Your task to perform on an android device: turn on priority inbox in the gmail app Image 0: 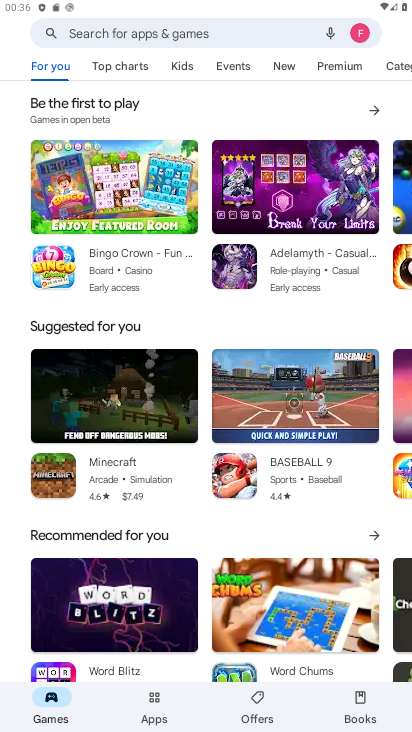
Step 0: press back button
Your task to perform on an android device: turn on priority inbox in the gmail app Image 1: 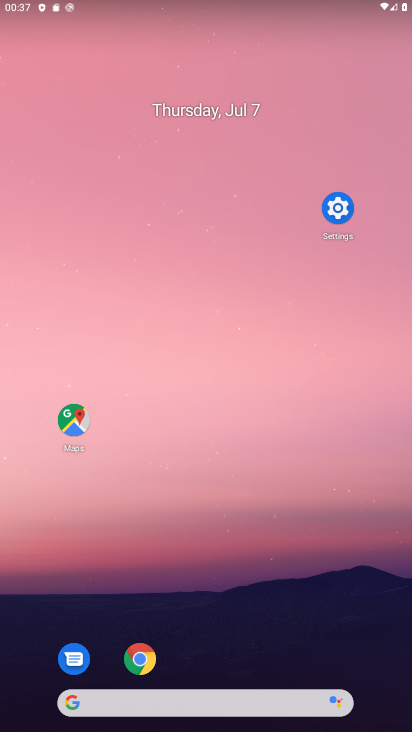
Step 1: drag from (241, 662) to (199, 208)
Your task to perform on an android device: turn on priority inbox in the gmail app Image 2: 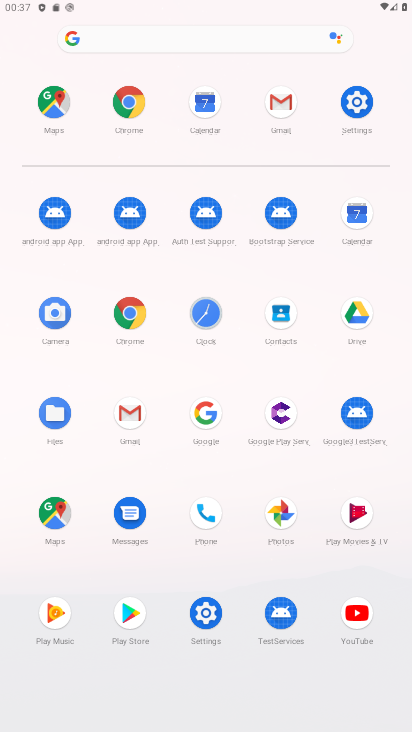
Step 2: click (113, 410)
Your task to perform on an android device: turn on priority inbox in the gmail app Image 3: 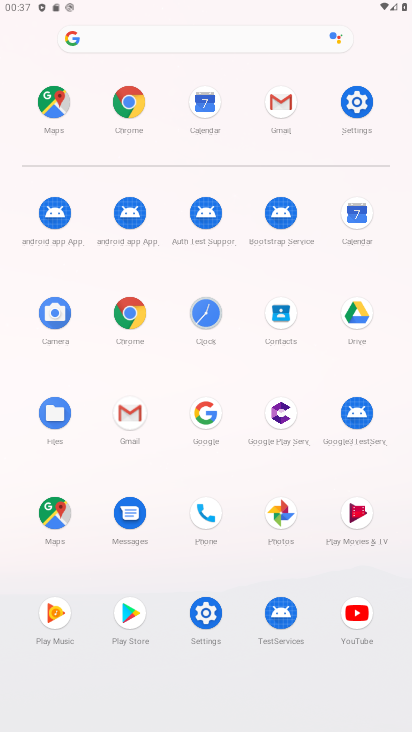
Step 3: click (136, 417)
Your task to perform on an android device: turn on priority inbox in the gmail app Image 4: 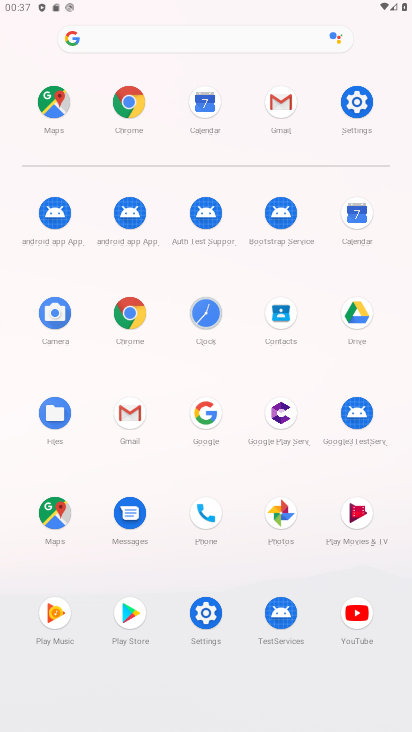
Step 4: click (136, 417)
Your task to perform on an android device: turn on priority inbox in the gmail app Image 5: 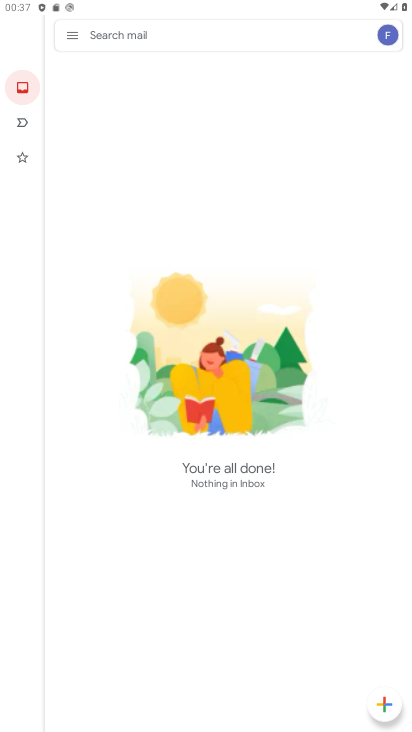
Step 5: click (72, 35)
Your task to perform on an android device: turn on priority inbox in the gmail app Image 6: 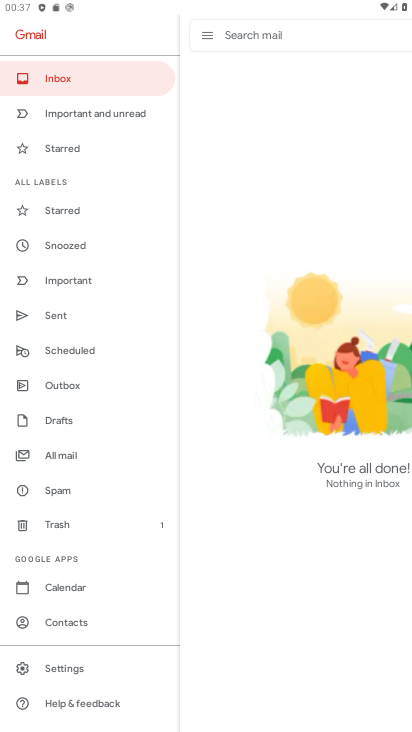
Step 6: click (67, 663)
Your task to perform on an android device: turn on priority inbox in the gmail app Image 7: 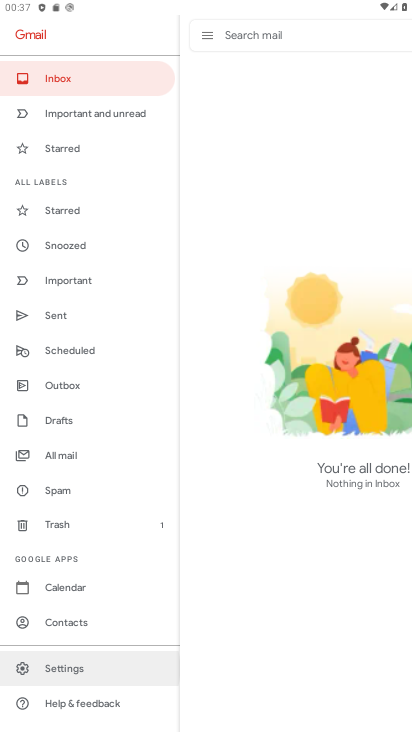
Step 7: click (62, 670)
Your task to perform on an android device: turn on priority inbox in the gmail app Image 8: 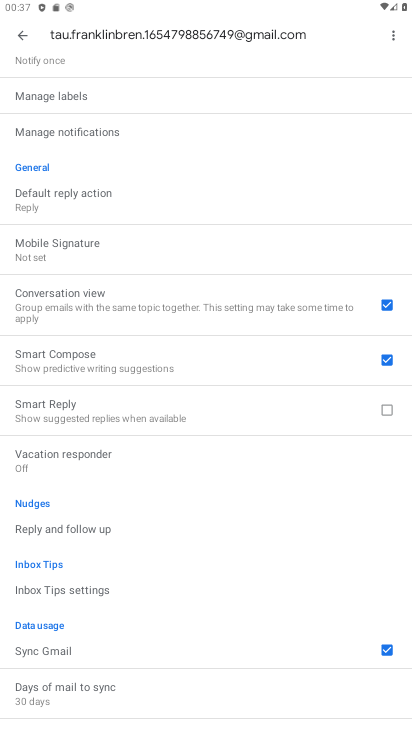
Step 8: task complete